Your task to perform on an android device: turn off airplane mode Image 0: 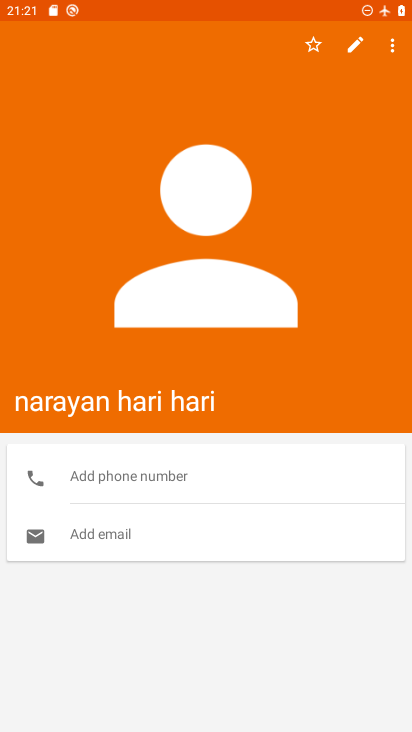
Step 0: press home button
Your task to perform on an android device: turn off airplane mode Image 1: 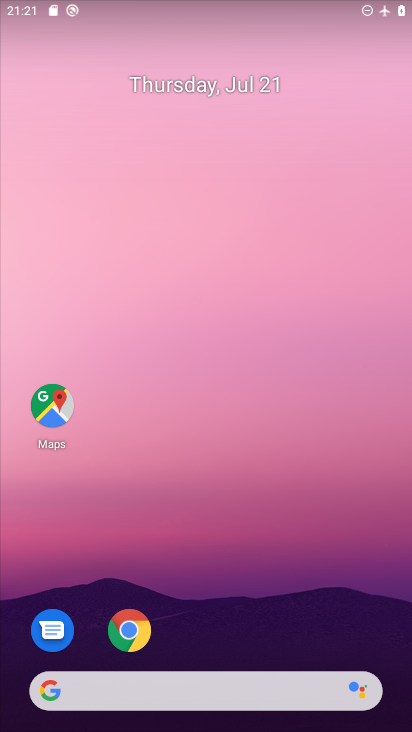
Step 1: drag from (233, 606) to (119, 64)
Your task to perform on an android device: turn off airplane mode Image 2: 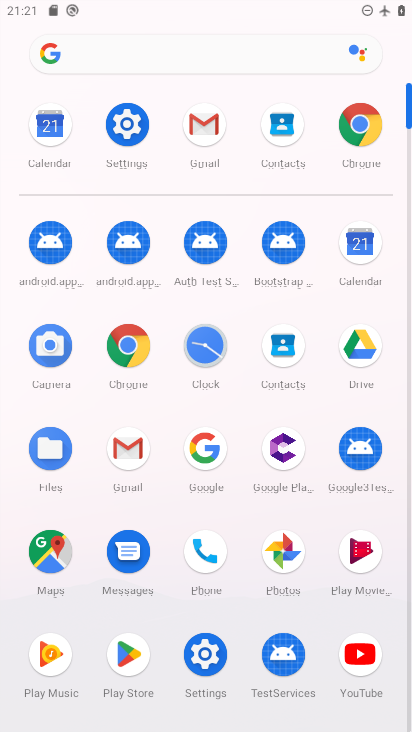
Step 2: click (130, 125)
Your task to perform on an android device: turn off airplane mode Image 3: 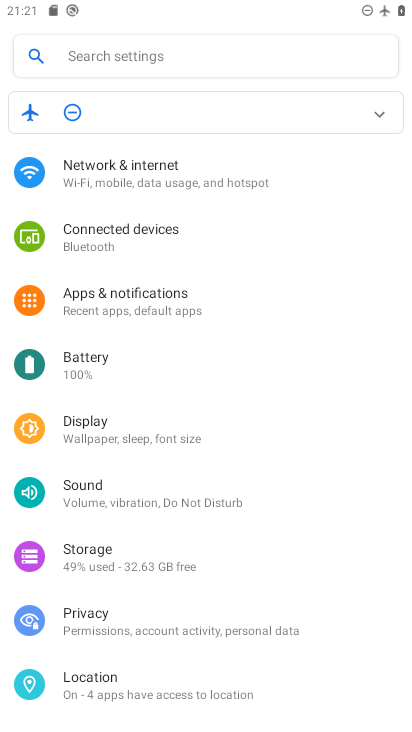
Step 3: click (137, 160)
Your task to perform on an android device: turn off airplane mode Image 4: 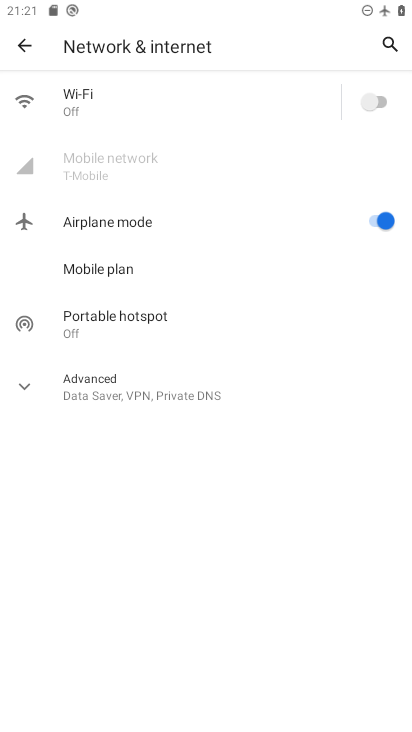
Step 4: click (385, 228)
Your task to perform on an android device: turn off airplane mode Image 5: 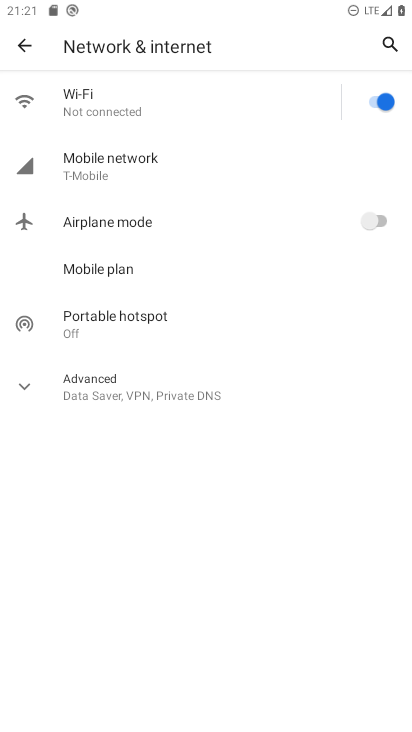
Step 5: task complete